Your task to perform on an android device: turn on improve location accuracy Image 0: 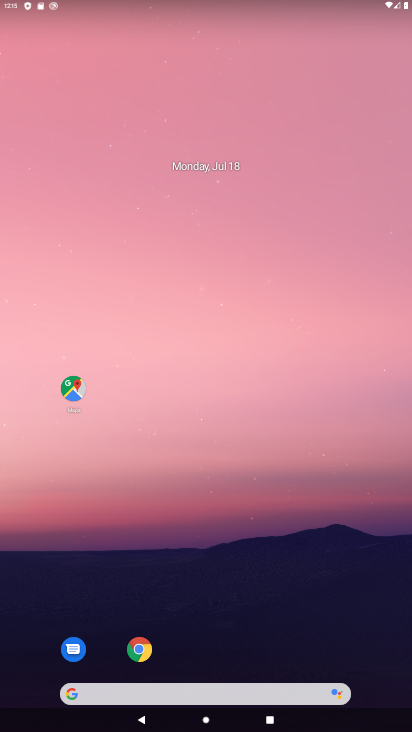
Step 0: drag from (224, 660) to (219, 12)
Your task to perform on an android device: turn on improve location accuracy Image 1: 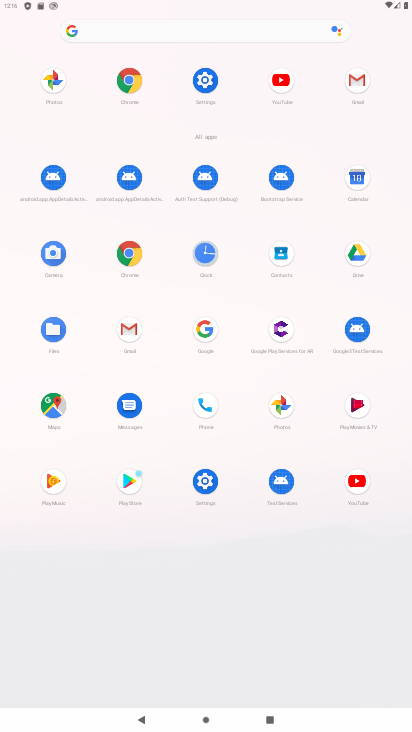
Step 1: click (205, 83)
Your task to perform on an android device: turn on improve location accuracy Image 2: 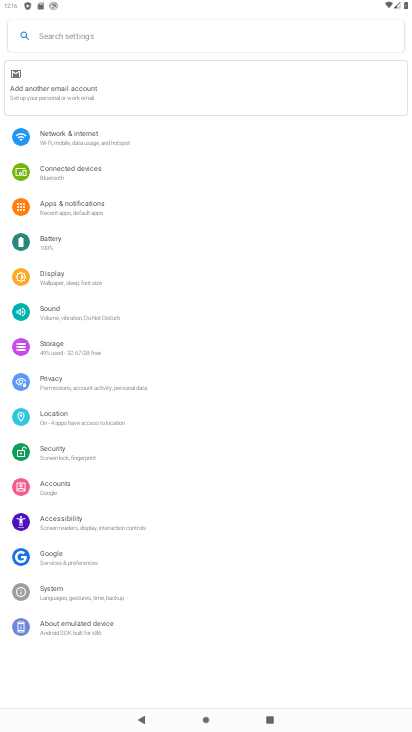
Step 2: click (48, 416)
Your task to perform on an android device: turn on improve location accuracy Image 3: 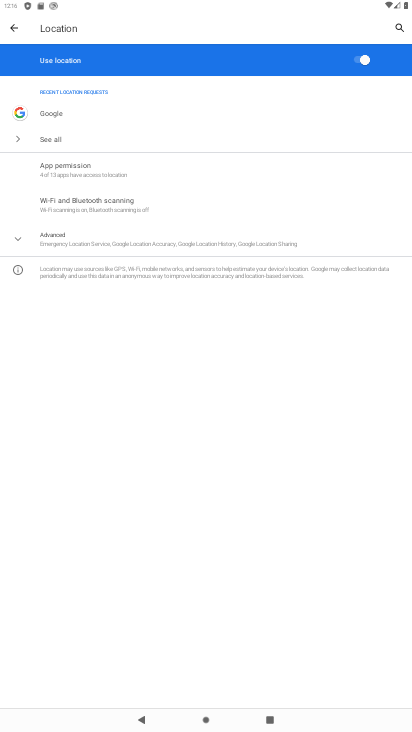
Step 3: click (51, 235)
Your task to perform on an android device: turn on improve location accuracy Image 4: 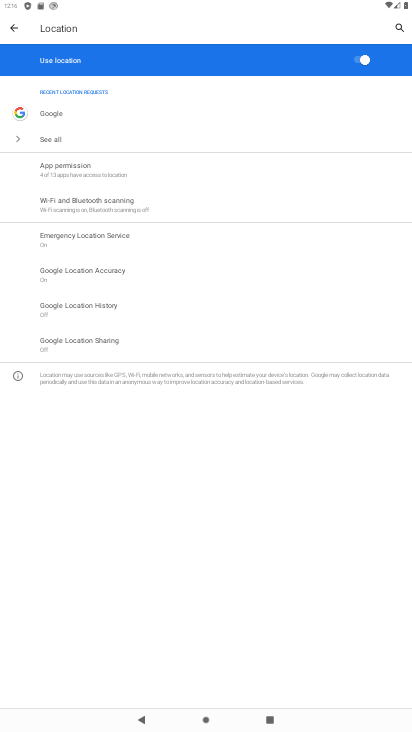
Step 4: click (107, 271)
Your task to perform on an android device: turn on improve location accuracy Image 5: 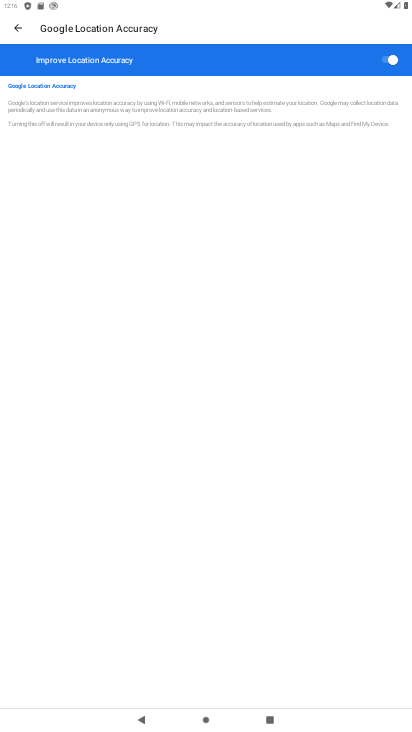
Step 5: task complete